Your task to perform on an android device: add a label to a message in the gmail app Image 0: 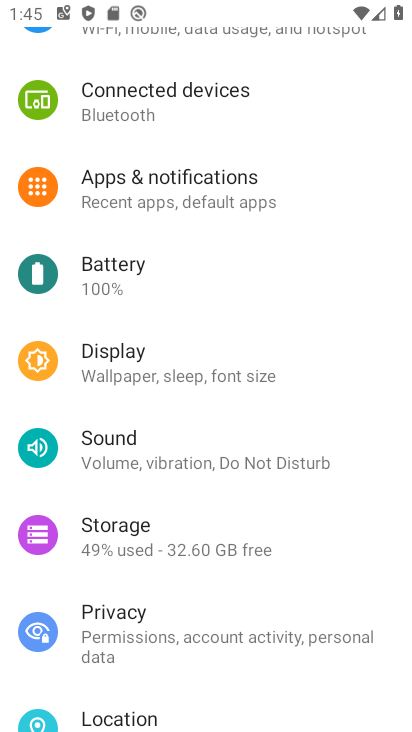
Step 0: drag from (280, 546) to (290, 35)
Your task to perform on an android device: add a label to a message in the gmail app Image 1: 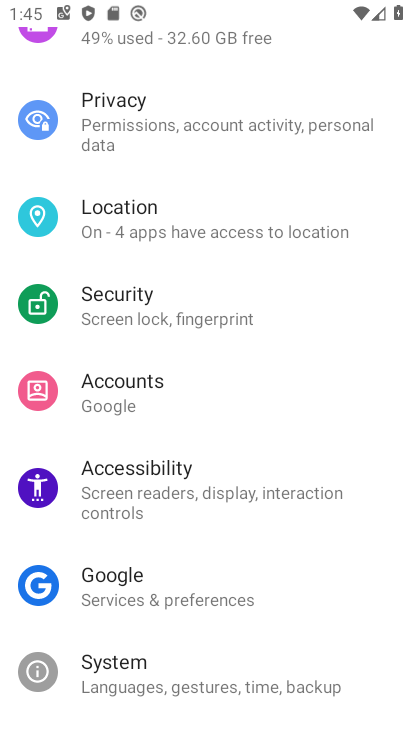
Step 1: press back button
Your task to perform on an android device: add a label to a message in the gmail app Image 2: 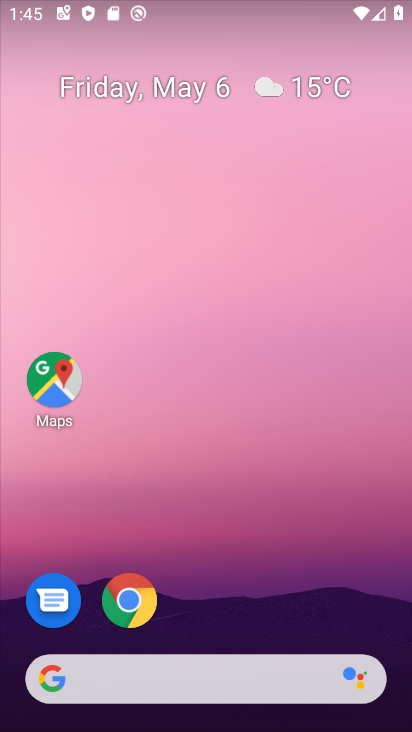
Step 2: drag from (295, 555) to (245, 35)
Your task to perform on an android device: add a label to a message in the gmail app Image 3: 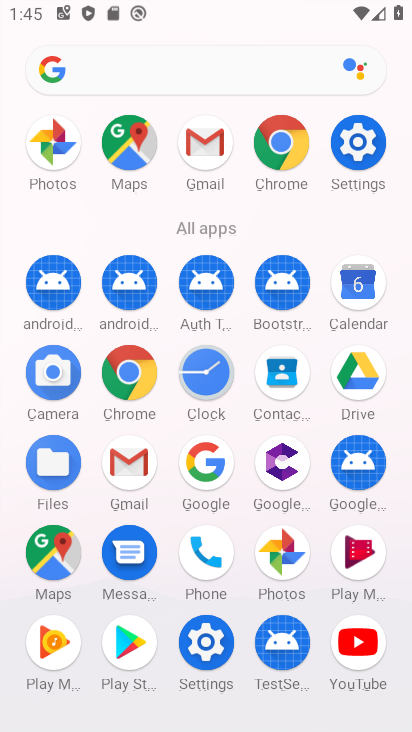
Step 3: click (208, 133)
Your task to perform on an android device: add a label to a message in the gmail app Image 4: 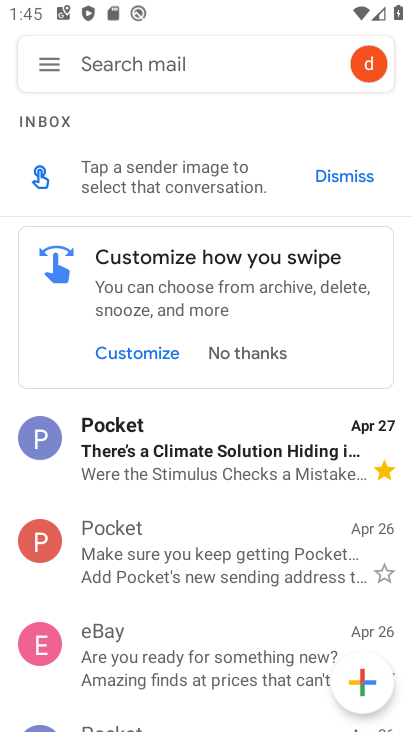
Step 4: click (170, 546)
Your task to perform on an android device: add a label to a message in the gmail app Image 5: 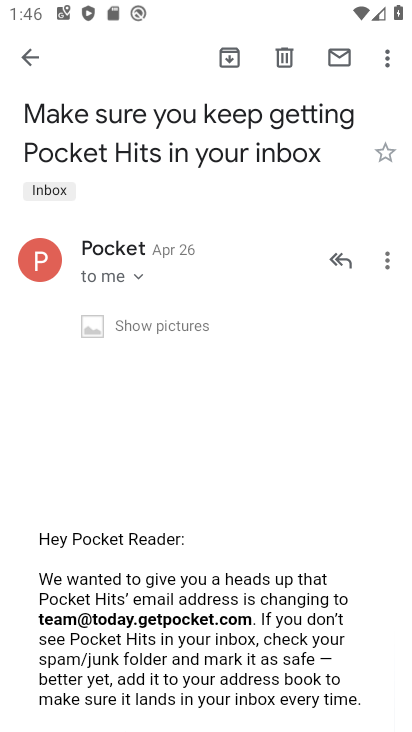
Step 5: drag from (245, 464) to (220, 161)
Your task to perform on an android device: add a label to a message in the gmail app Image 6: 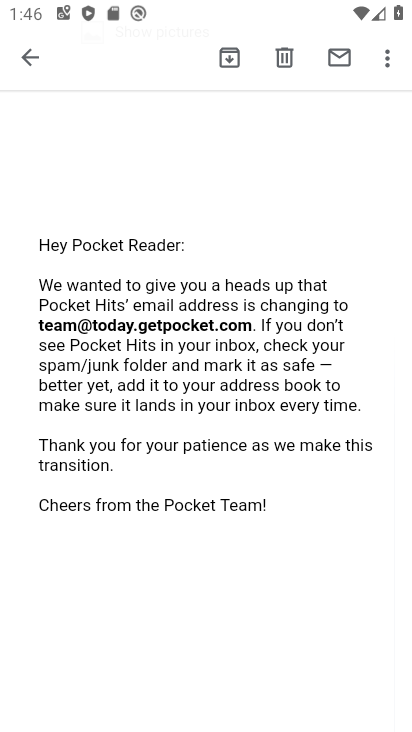
Step 6: drag from (220, 161) to (231, 589)
Your task to perform on an android device: add a label to a message in the gmail app Image 7: 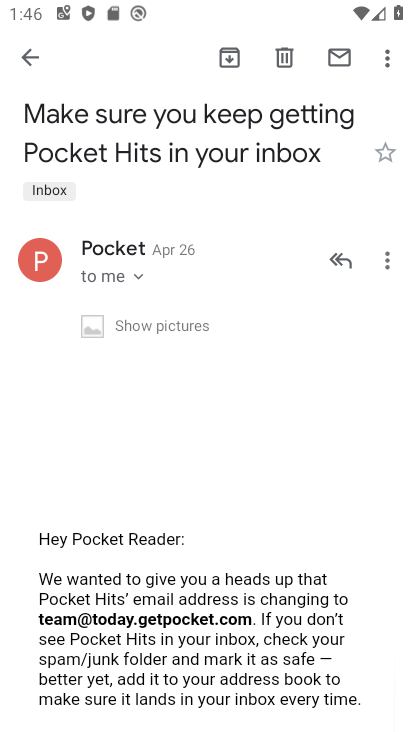
Step 7: click (47, 189)
Your task to perform on an android device: add a label to a message in the gmail app Image 8: 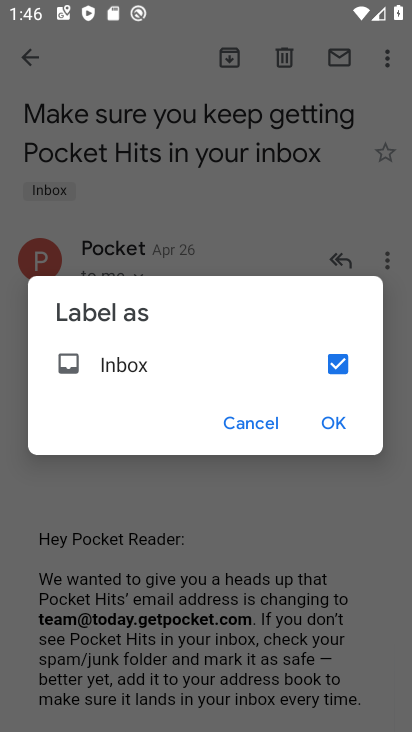
Step 8: click (336, 360)
Your task to perform on an android device: add a label to a message in the gmail app Image 9: 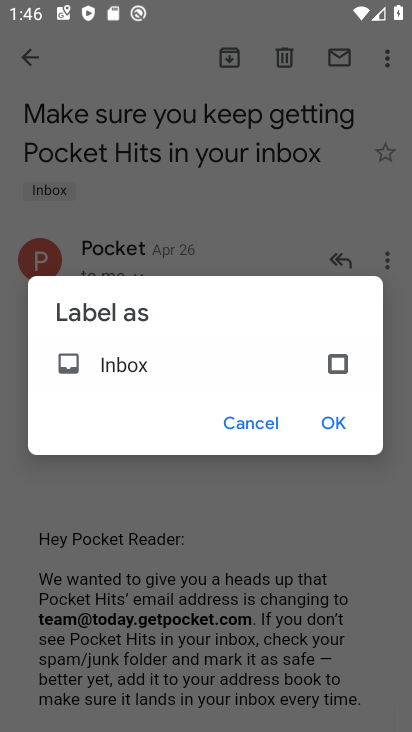
Step 9: click (329, 423)
Your task to perform on an android device: add a label to a message in the gmail app Image 10: 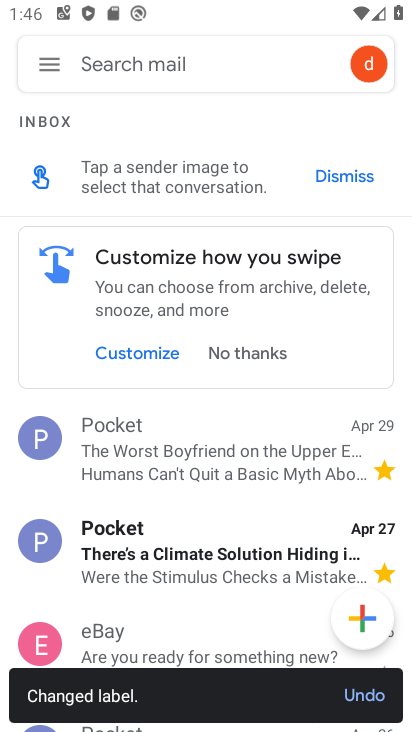
Step 10: task complete